Your task to perform on an android device: Open maps Image 0: 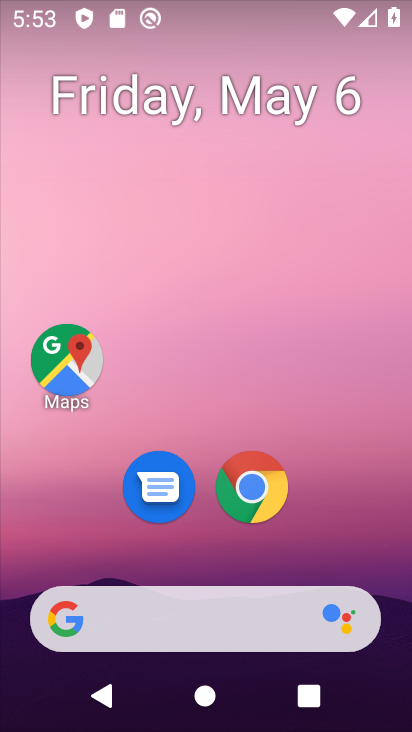
Step 0: click (342, 78)
Your task to perform on an android device: Open maps Image 1: 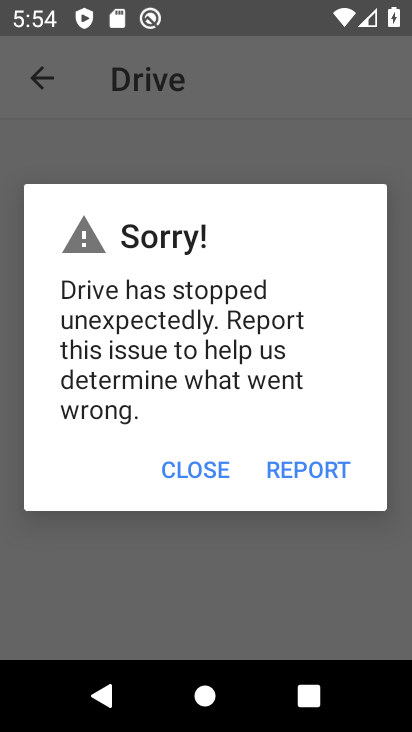
Step 1: press home button
Your task to perform on an android device: Open maps Image 2: 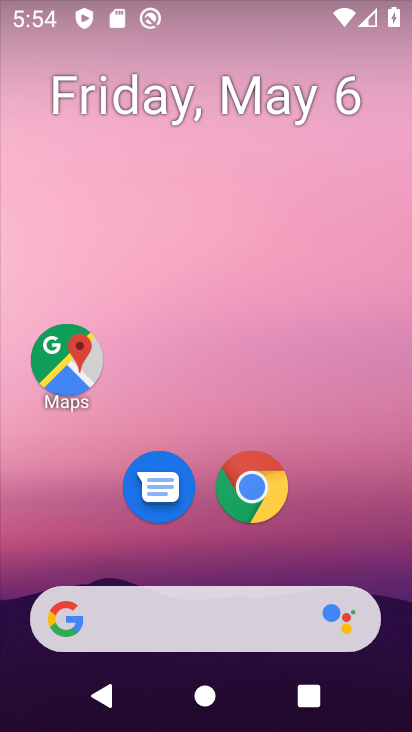
Step 2: drag from (343, 531) to (325, 105)
Your task to perform on an android device: Open maps Image 3: 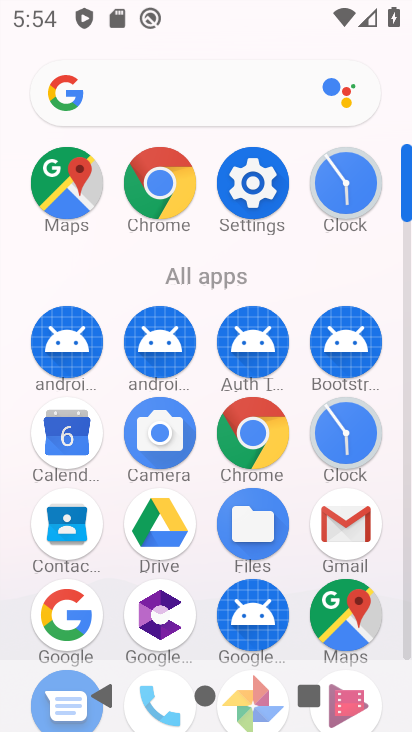
Step 3: click (65, 203)
Your task to perform on an android device: Open maps Image 4: 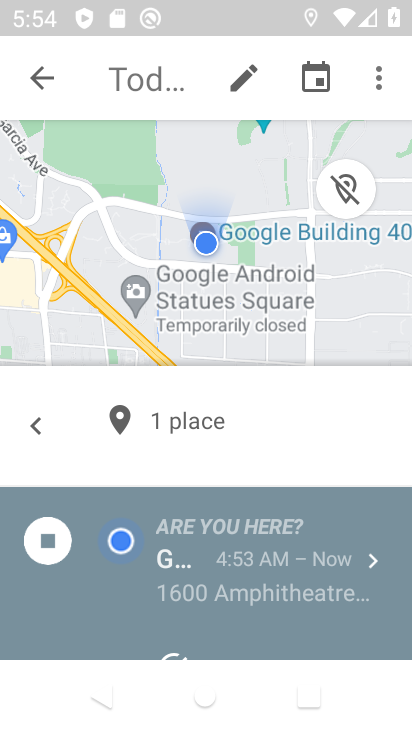
Step 4: task complete